Your task to perform on an android device: Show the shopping cart on target.com. Search for "usb-c to usb-a" on target.com, select the first entry, and add it to the cart. Image 0: 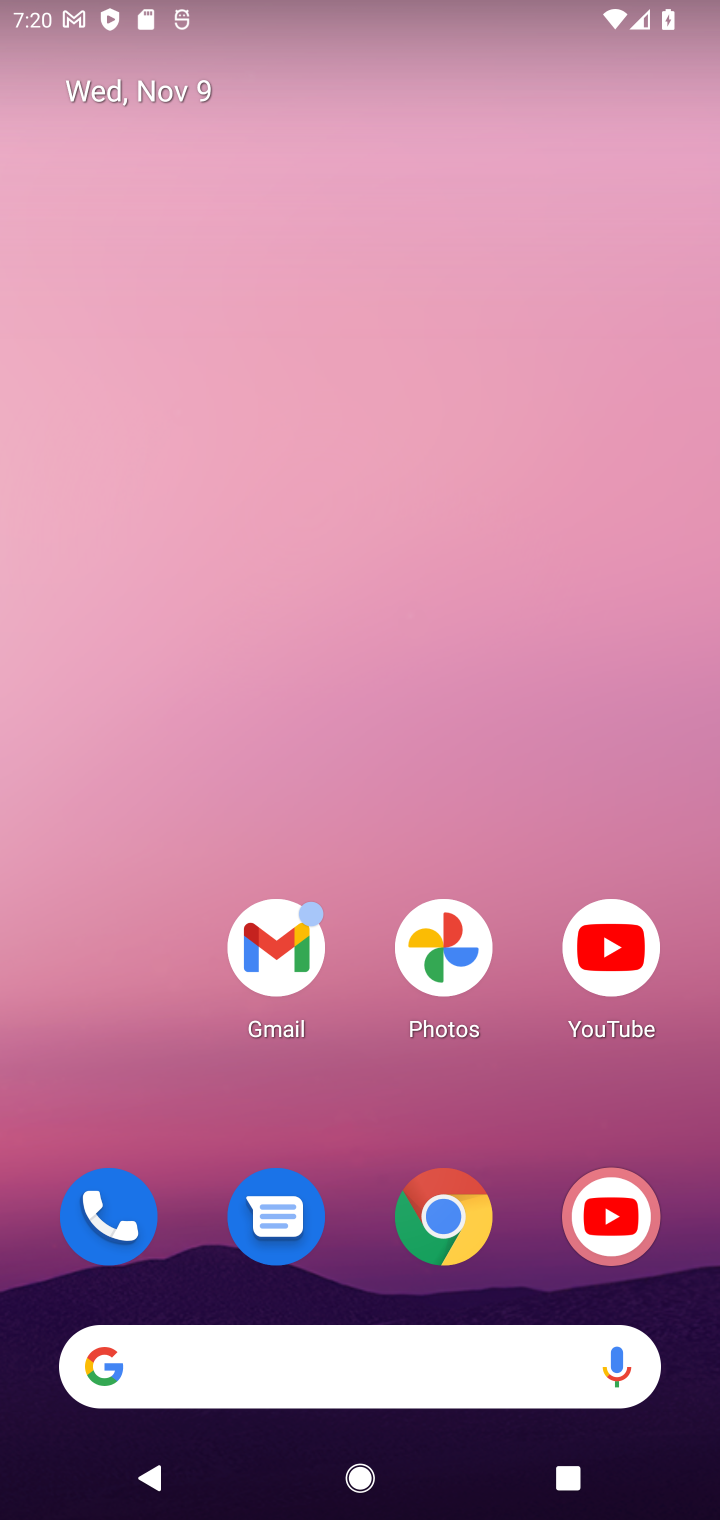
Step 0: drag from (339, 1125) to (341, 76)
Your task to perform on an android device: Show the shopping cart on target.com. Search for "usb-c to usb-a" on target.com, select the first entry, and add it to the cart. Image 1: 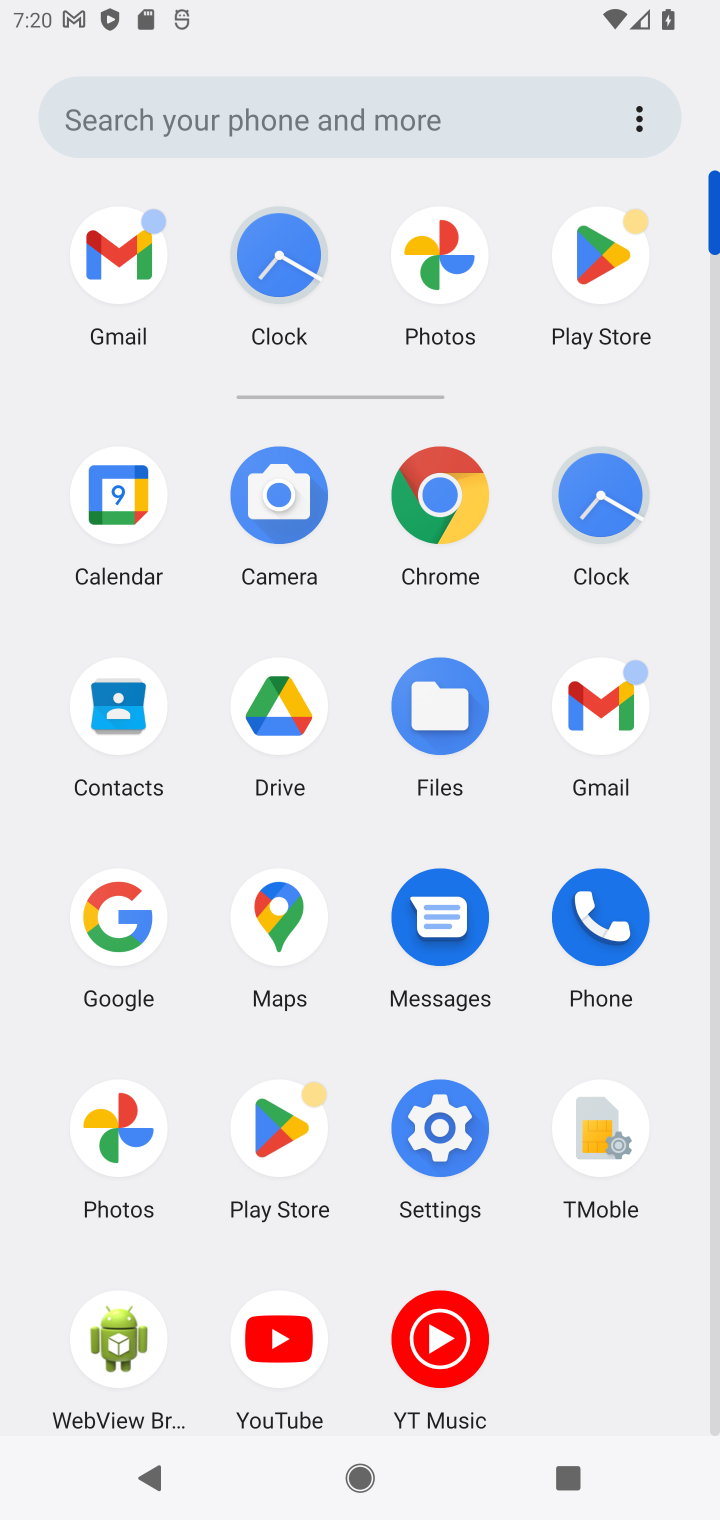
Step 1: click (423, 507)
Your task to perform on an android device: Show the shopping cart on target.com. Search for "usb-c to usb-a" on target.com, select the first entry, and add it to the cart. Image 2: 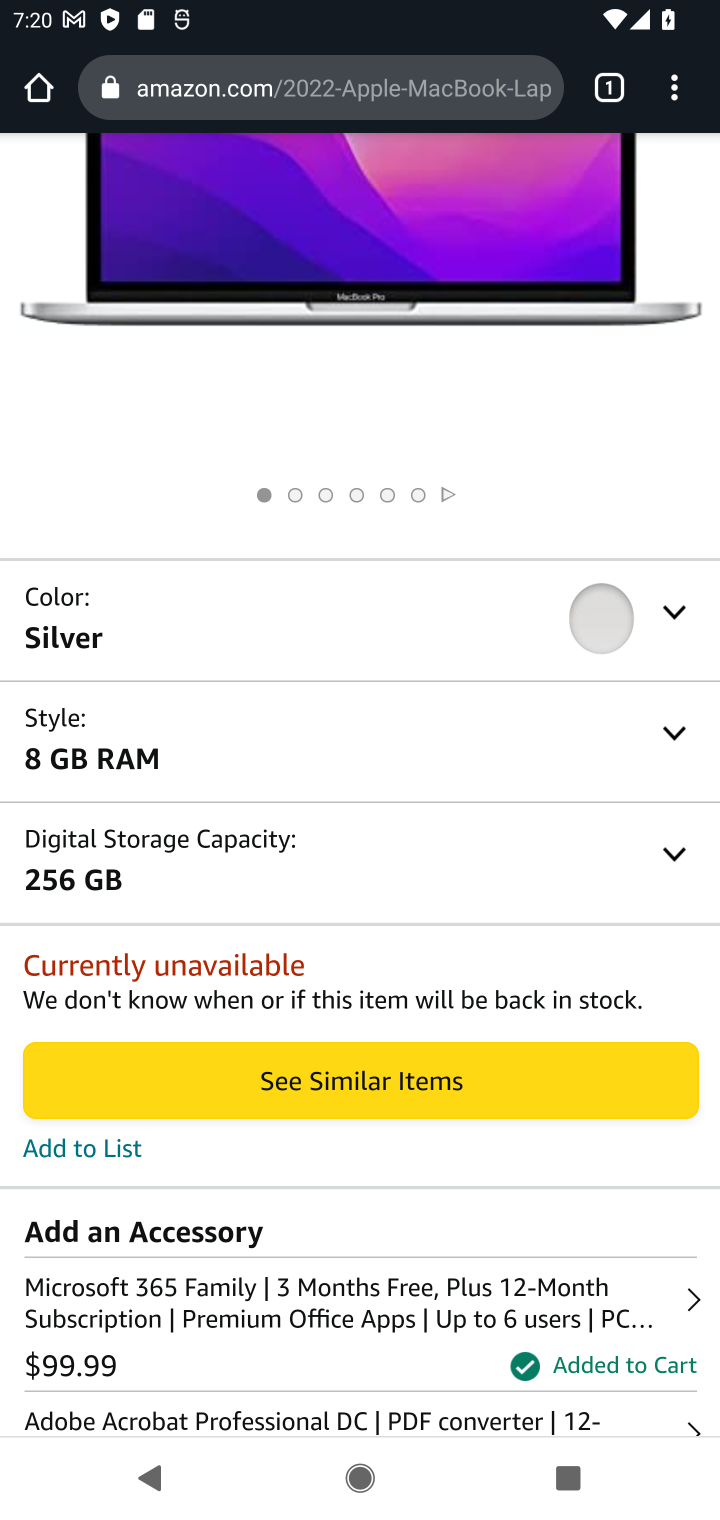
Step 2: click (380, 81)
Your task to perform on an android device: Show the shopping cart on target.com. Search for "usb-c to usb-a" on target.com, select the first entry, and add it to the cart. Image 3: 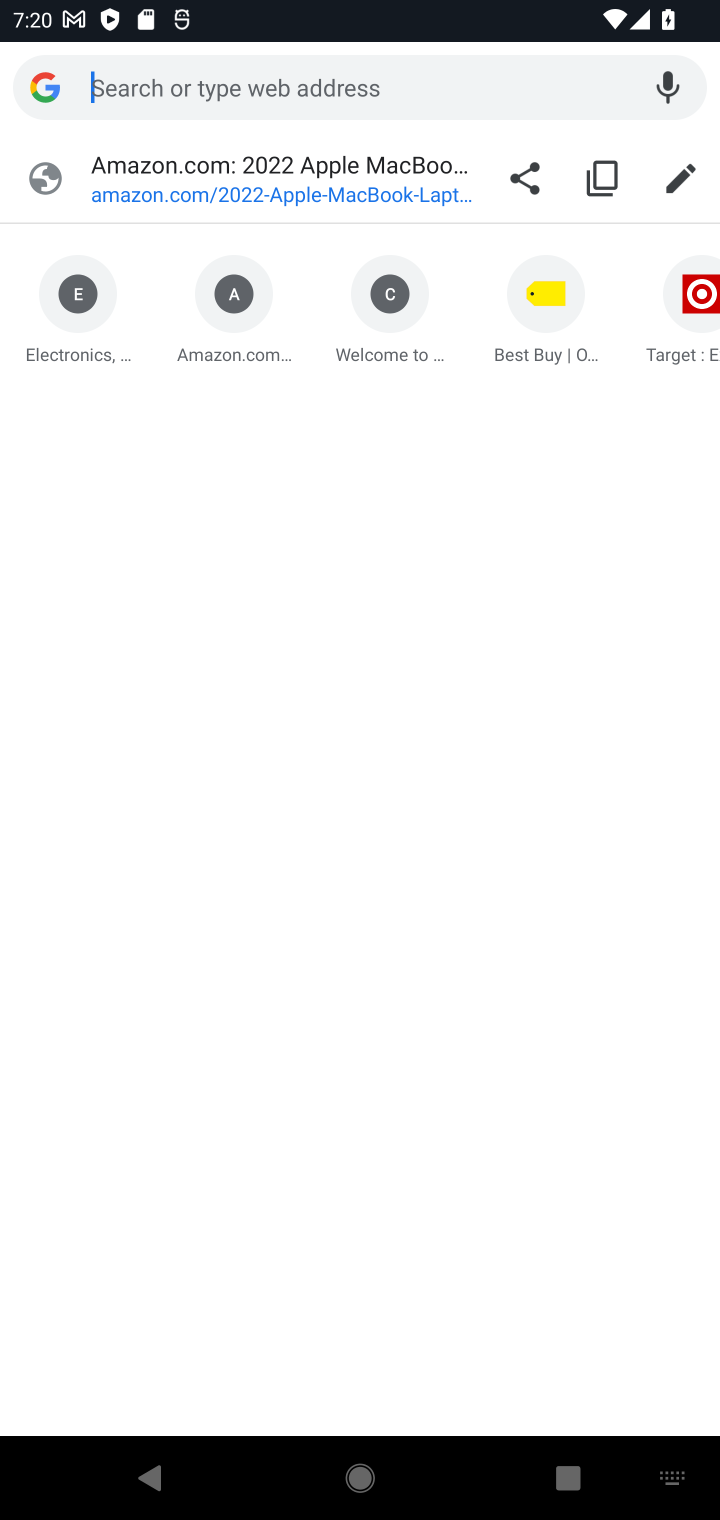
Step 3: type "target.com"
Your task to perform on an android device: Show the shopping cart on target.com. Search for "usb-c to usb-a" on target.com, select the first entry, and add it to the cart. Image 4: 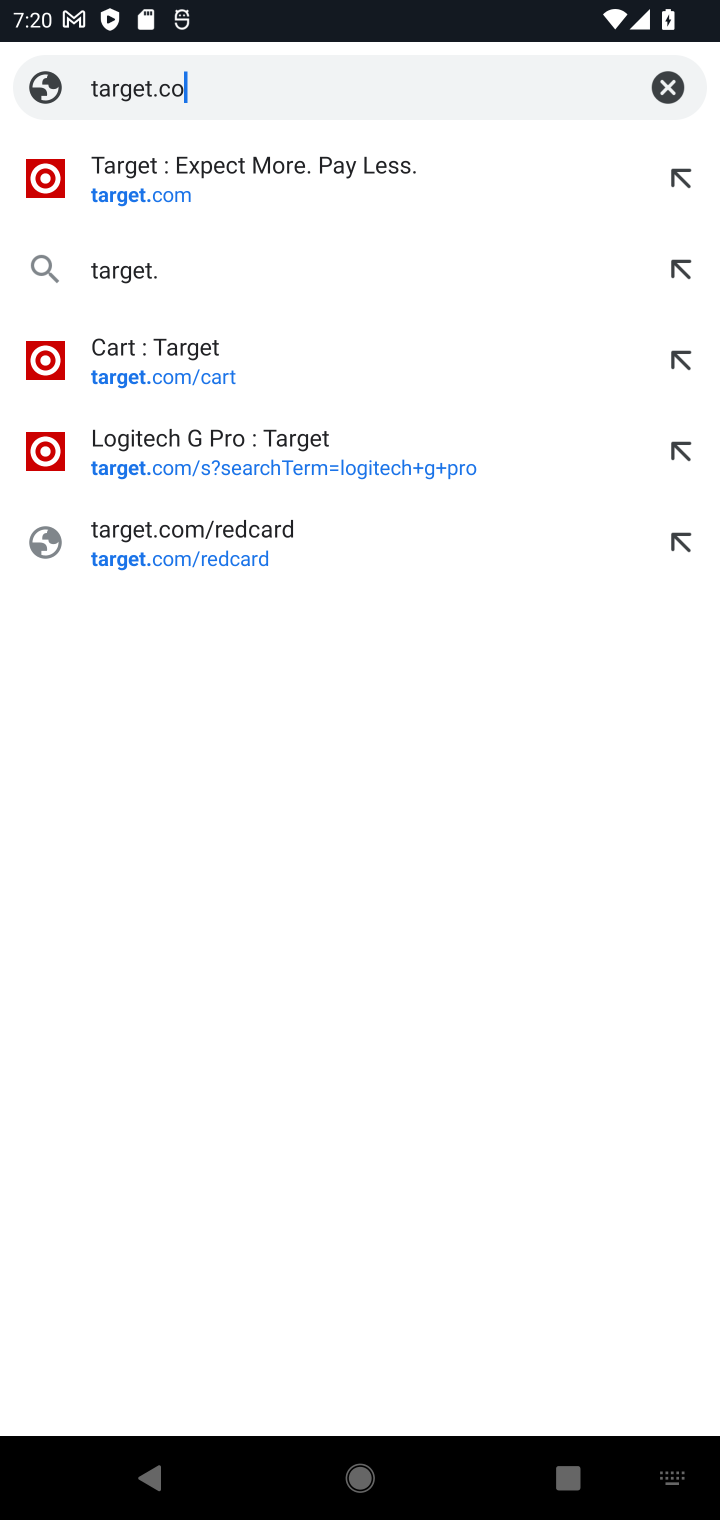
Step 4: press enter
Your task to perform on an android device: Show the shopping cart on target.com. Search for "usb-c to usb-a" on target.com, select the first entry, and add it to the cart. Image 5: 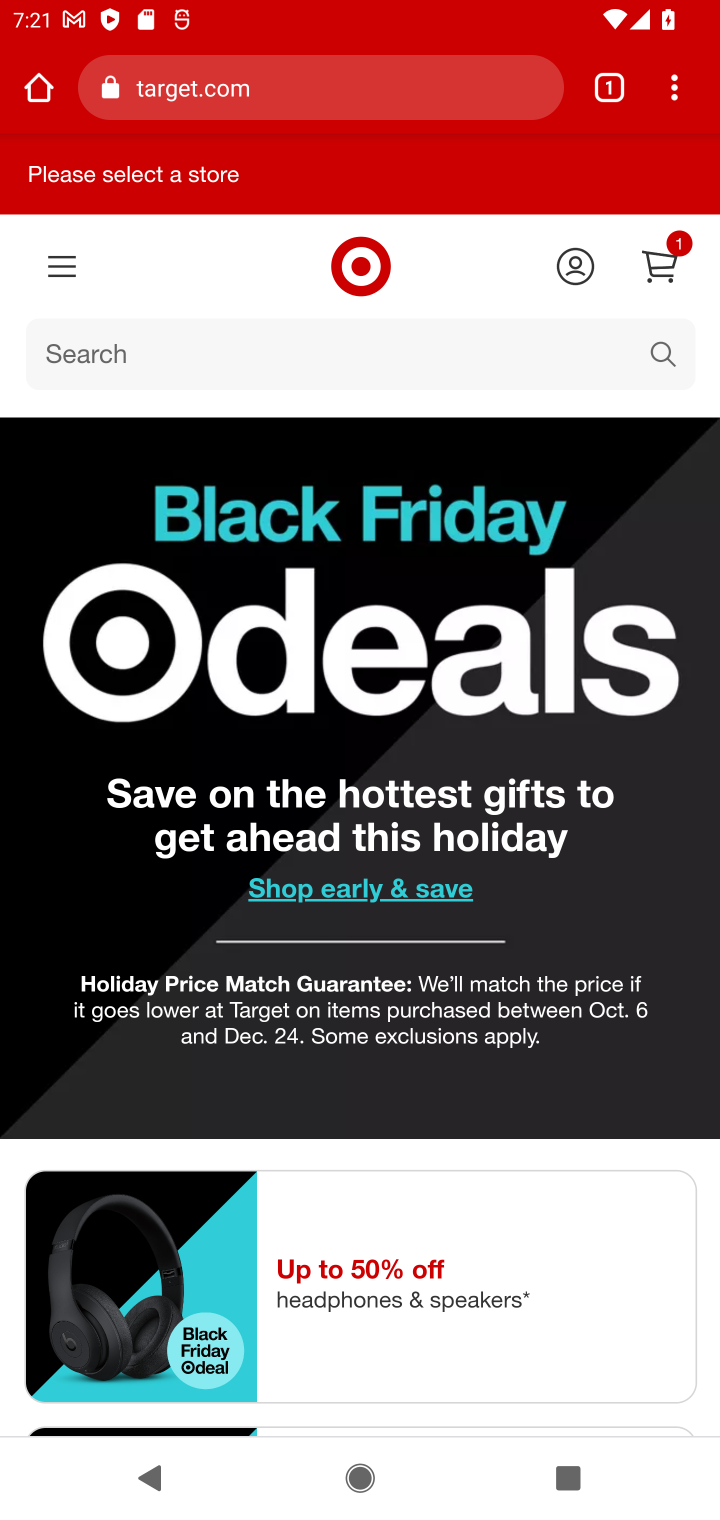
Step 5: click (667, 251)
Your task to perform on an android device: Show the shopping cart on target.com. Search for "usb-c to usb-a" on target.com, select the first entry, and add it to the cart. Image 6: 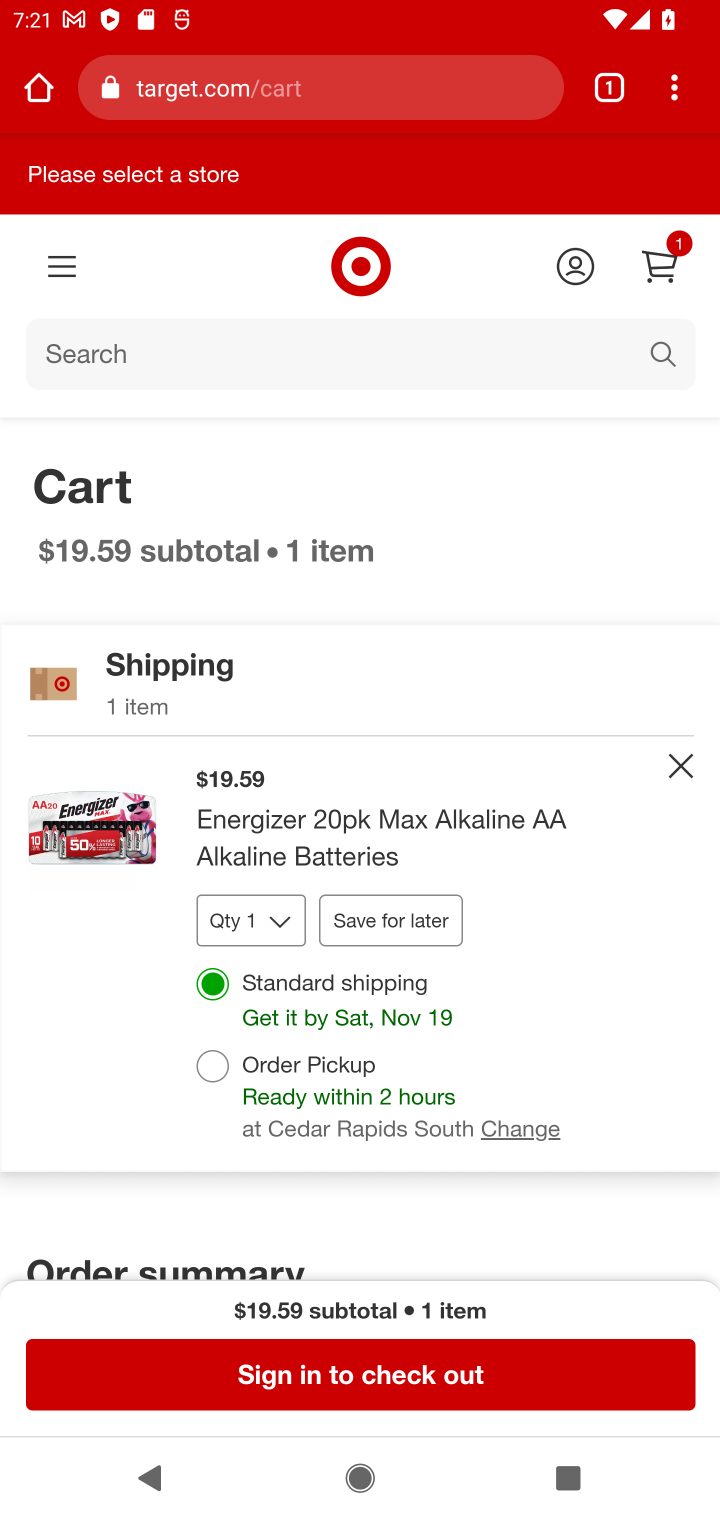
Step 6: click (277, 354)
Your task to perform on an android device: Show the shopping cart on target.com. Search for "usb-c to usb-a" on target.com, select the first entry, and add it to the cart. Image 7: 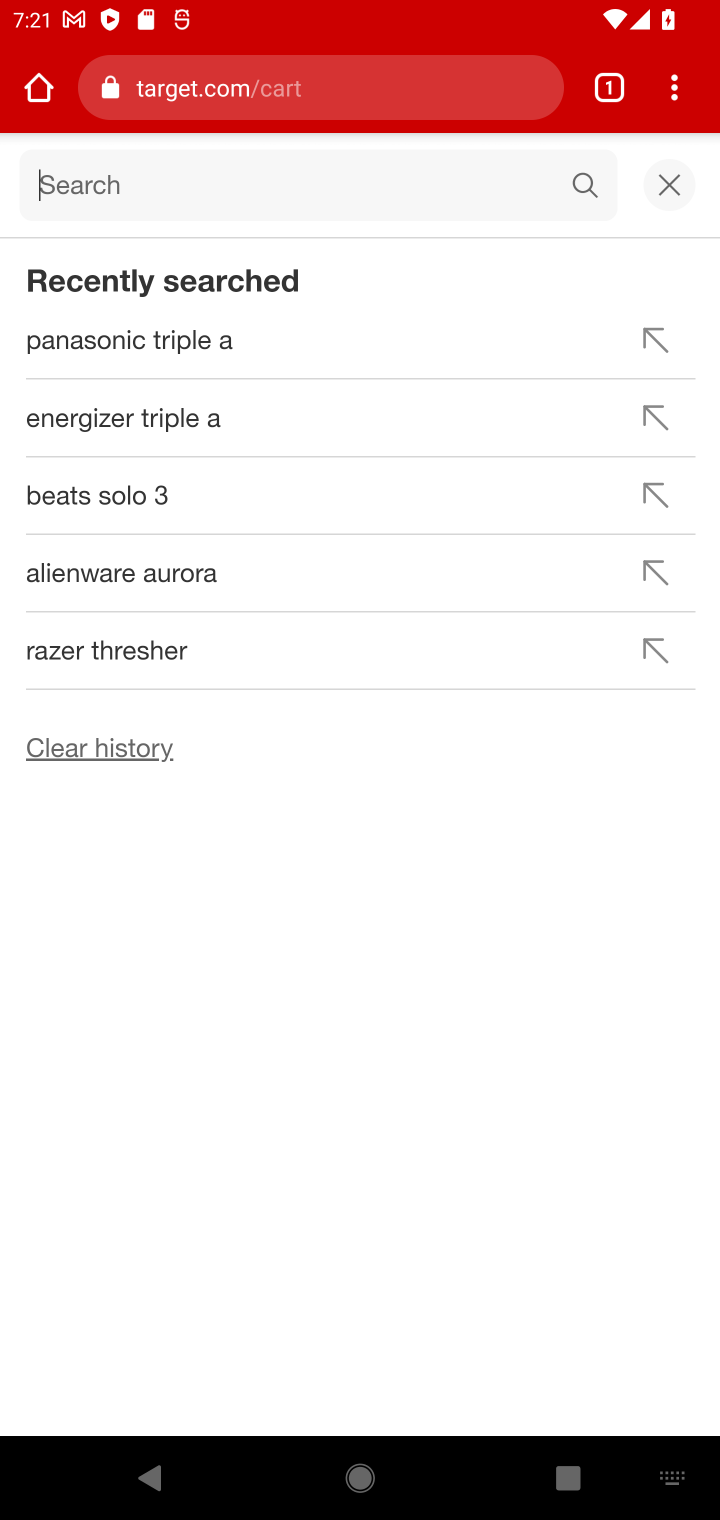
Step 7: type "usb-c to usb-a"
Your task to perform on an android device: Show the shopping cart on target.com. Search for "usb-c to usb-a" on target.com, select the first entry, and add it to the cart. Image 8: 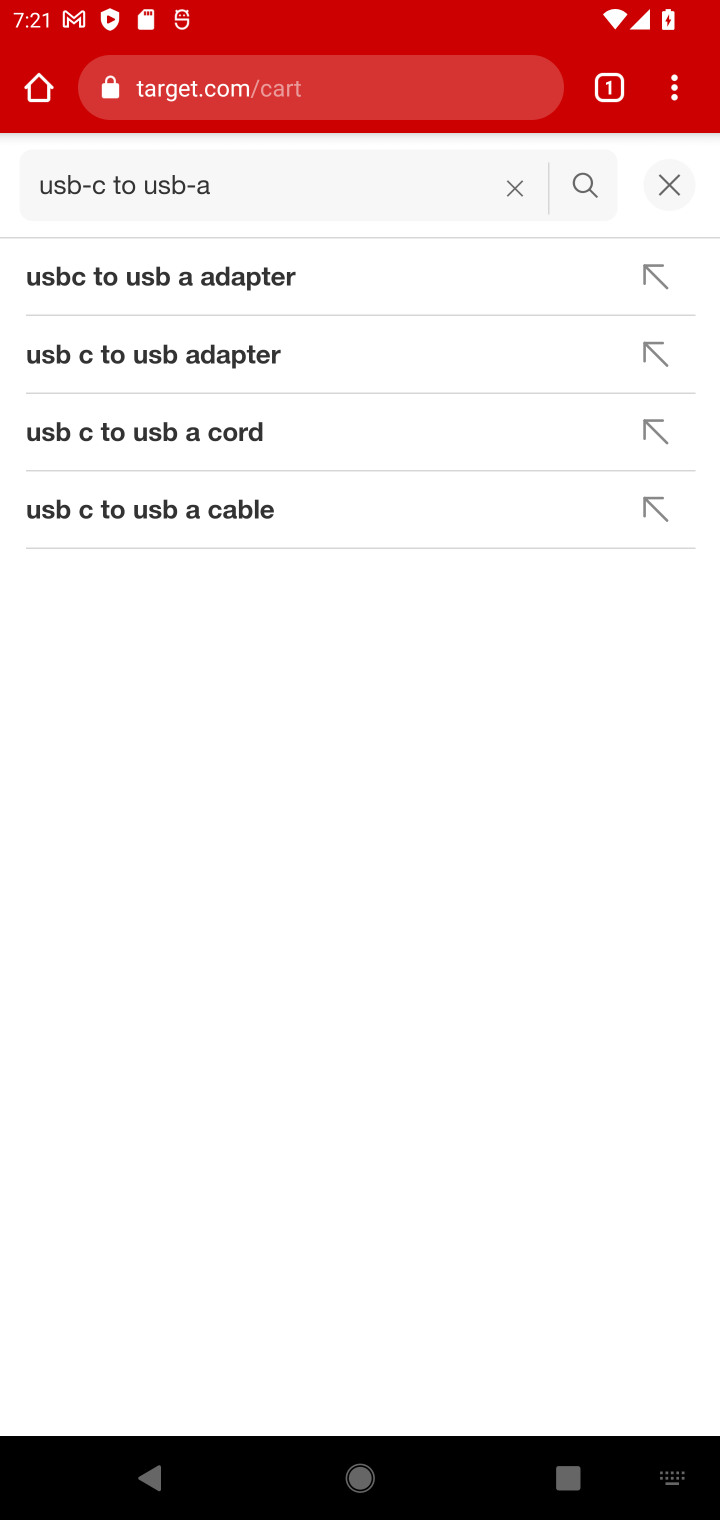
Step 8: press enter
Your task to perform on an android device: Show the shopping cart on target.com. Search for "usb-c to usb-a" on target.com, select the first entry, and add it to the cart. Image 9: 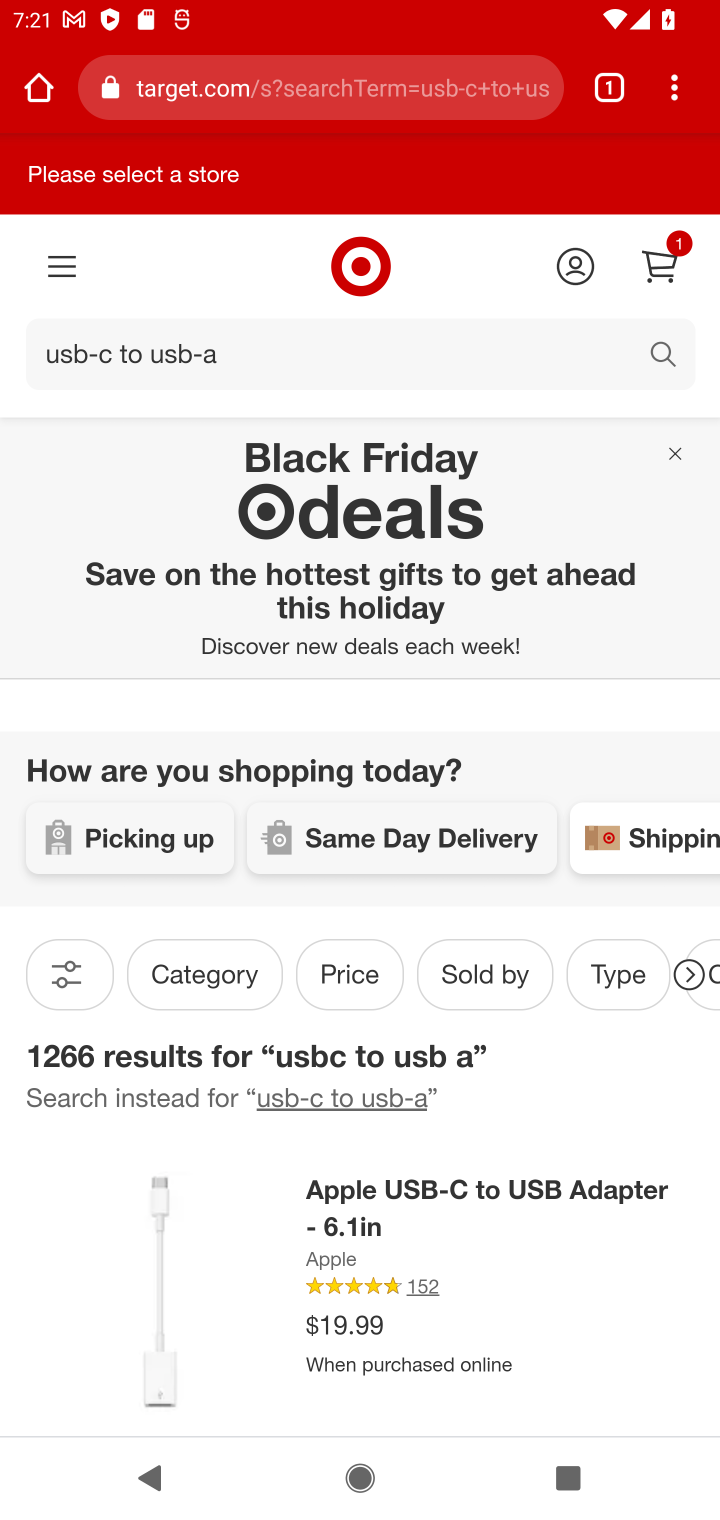
Step 9: drag from (464, 1317) to (466, 807)
Your task to perform on an android device: Show the shopping cart on target.com. Search for "usb-c to usb-a" on target.com, select the first entry, and add it to the cart. Image 10: 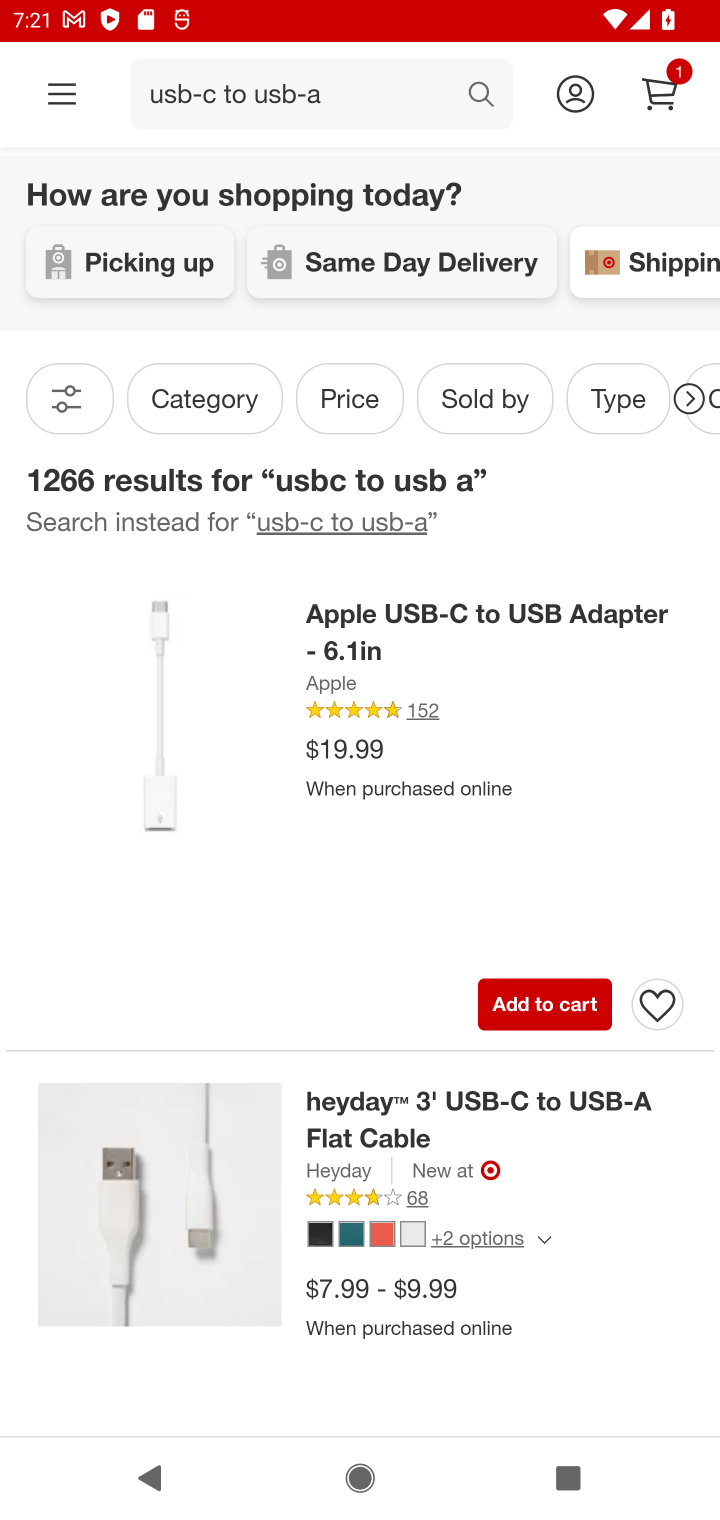
Step 10: click (502, 1004)
Your task to perform on an android device: Show the shopping cart on target.com. Search for "usb-c to usb-a" on target.com, select the first entry, and add it to the cart. Image 11: 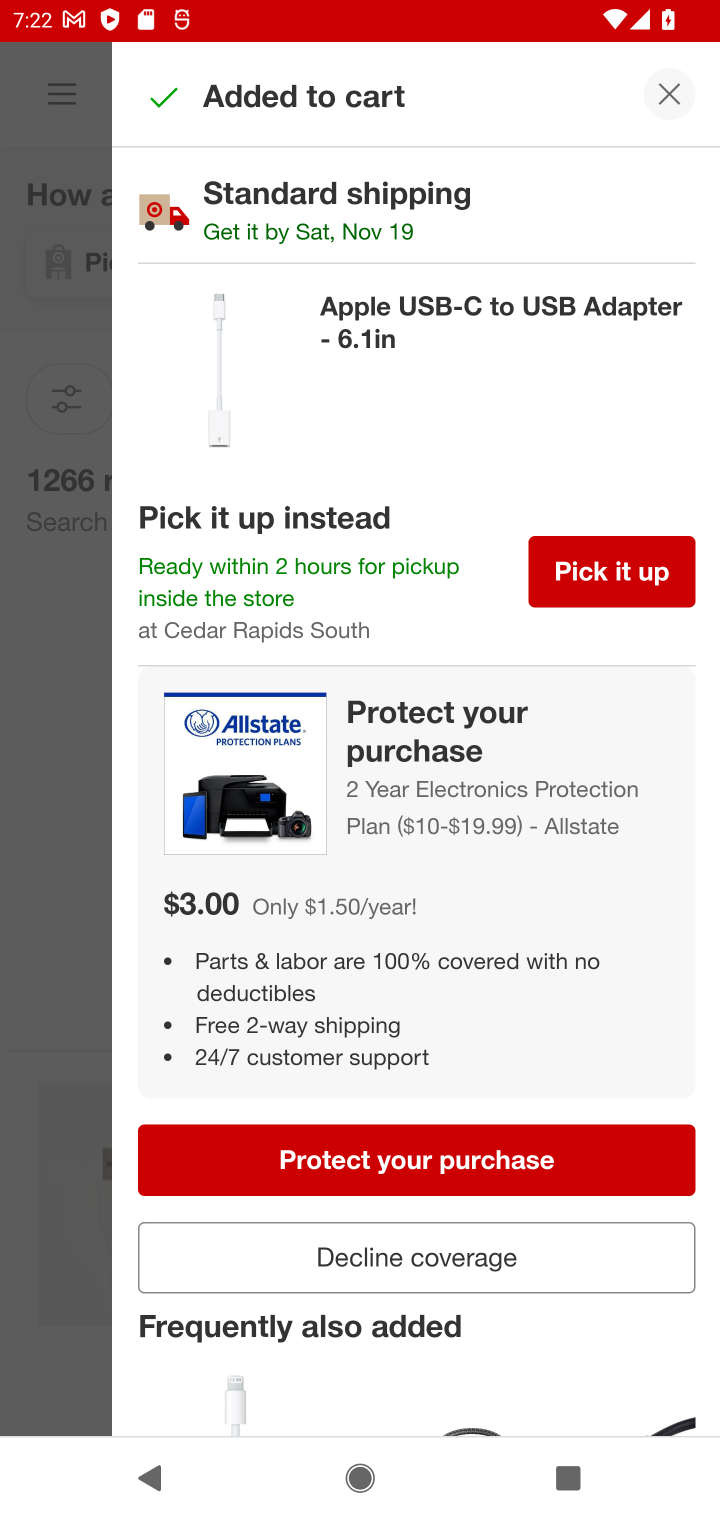
Step 11: task complete